Your task to perform on an android device: delete a single message in the gmail app Image 0: 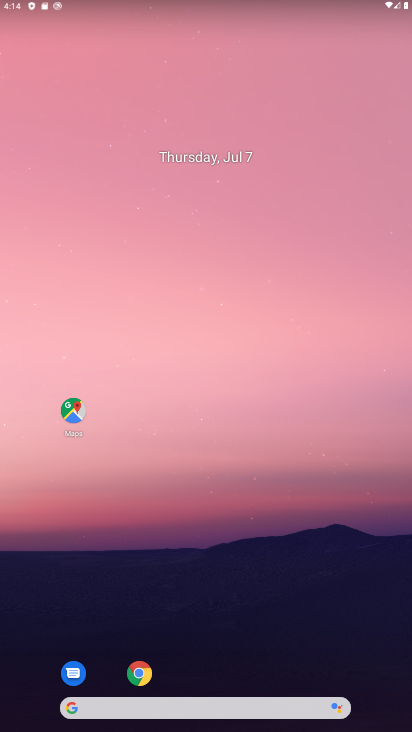
Step 0: drag from (231, 623) to (298, 57)
Your task to perform on an android device: delete a single message in the gmail app Image 1: 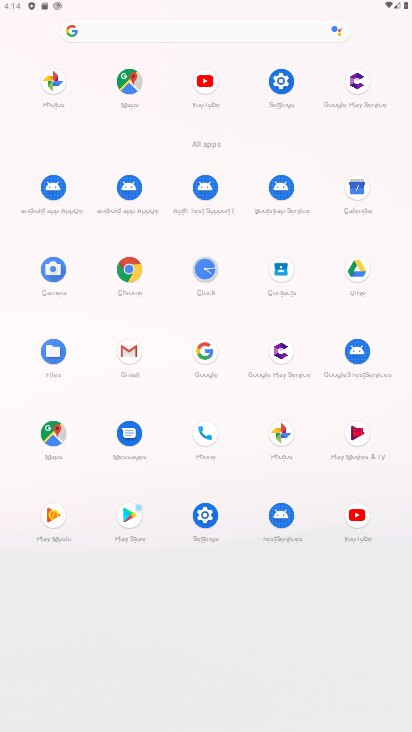
Step 1: drag from (133, 353) to (157, 262)
Your task to perform on an android device: delete a single message in the gmail app Image 2: 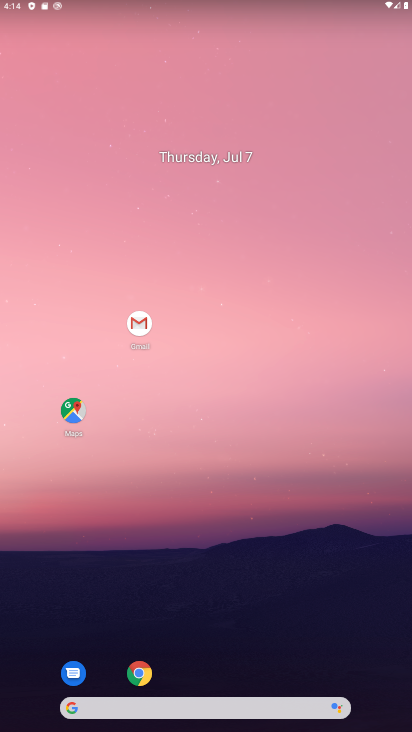
Step 2: click (127, 326)
Your task to perform on an android device: delete a single message in the gmail app Image 3: 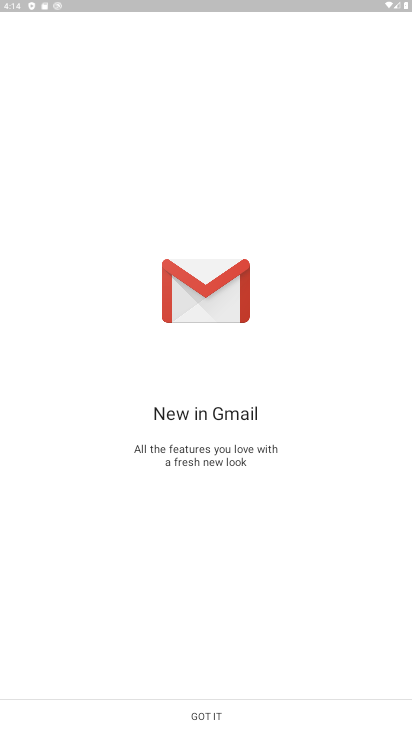
Step 3: click (231, 707)
Your task to perform on an android device: delete a single message in the gmail app Image 4: 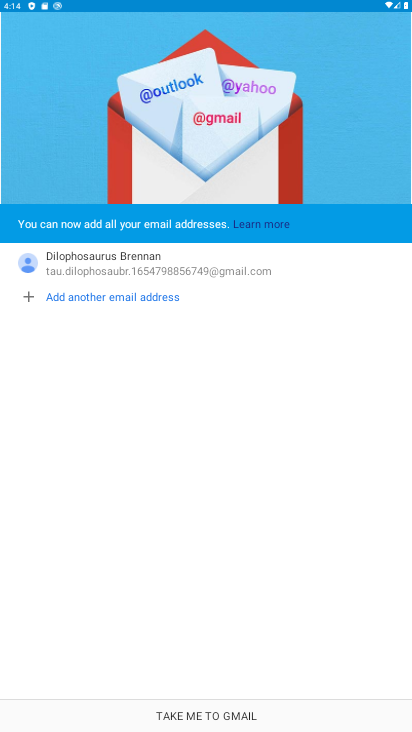
Step 4: click (228, 711)
Your task to perform on an android device: delete a single message in the gmail app Image 5: 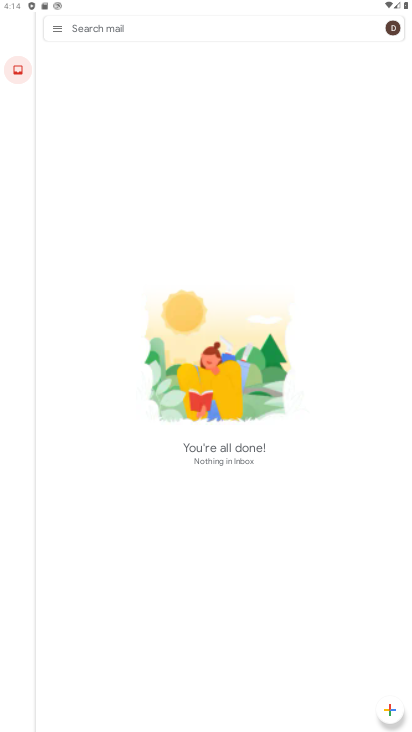
Step 5: task complete